Your task to perform on an android device: Toggle the flashlight Image 0: 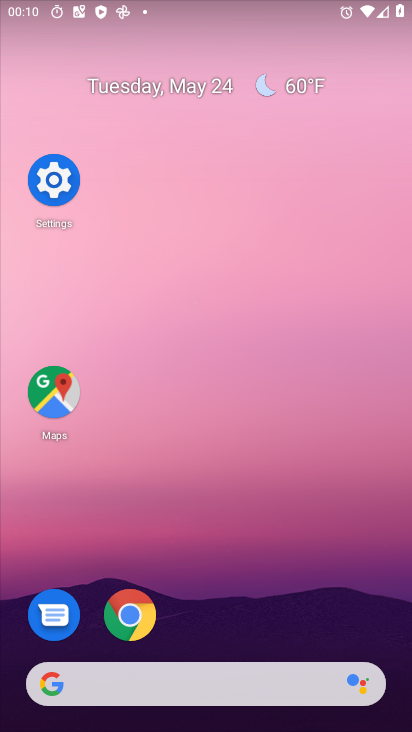
Step 0: drag from (202, 593) to (245, 41)
Your task to perform on an android device: Toggle the flashlight Image 1: 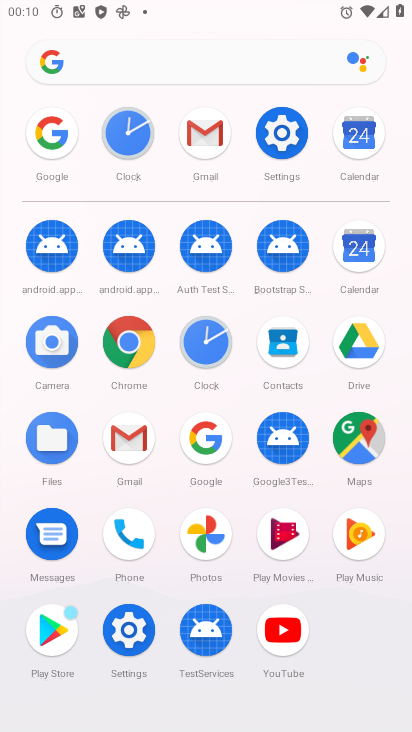
Step 1: click (286, 126)
Your task to perform on an android device: Toggle the flashlight Image 2: 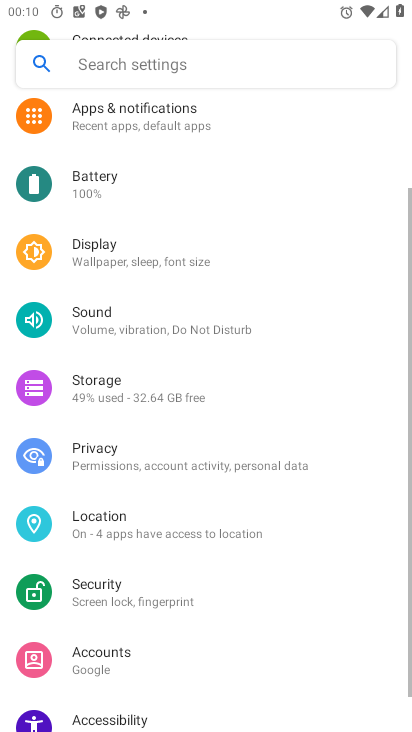
Step 2: click (195, 66)
Your task to perform on an android device: Toggle the flashlight Image 3: 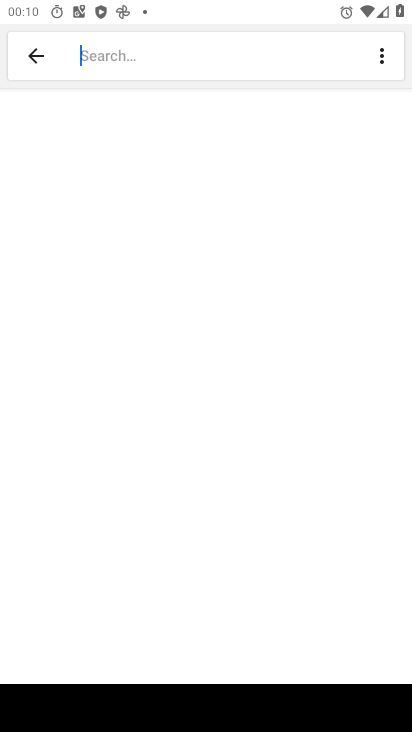
Step 3: type "flash"
Your task to perform on an android device: Toggle the flashlight Image 4: 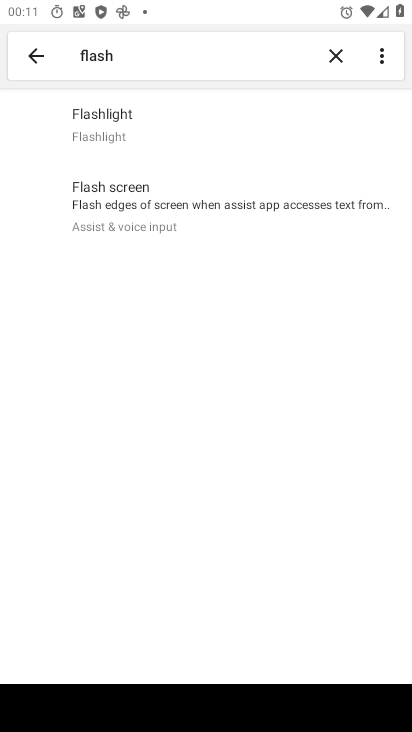
Step 4: task complete